Your task to perform on an android device: Open the calendar app, open the side menu, and click the "Day" option Image 0: 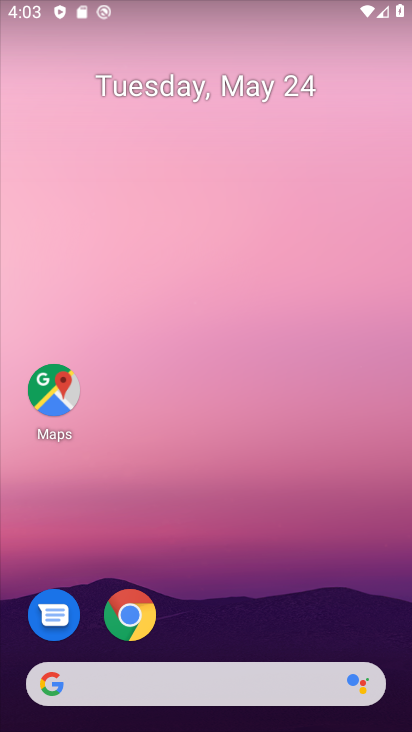
Step 0: drag from (202, 637) to (266, 139)
Your task to perform on an android device: Open the calendar app, open the side menu, and click the "Day" option Image 1: 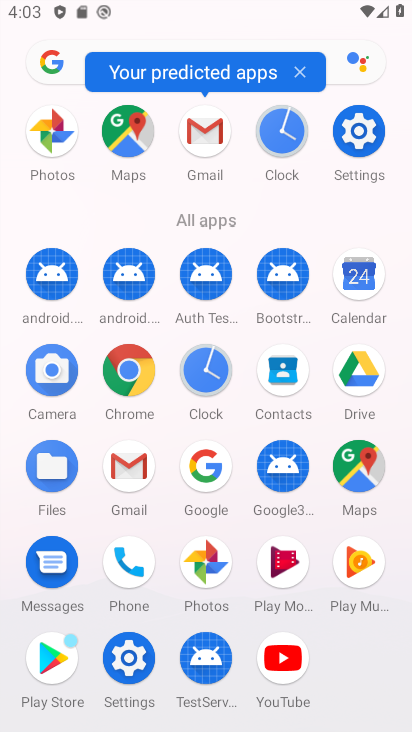
Step 1: click (357, 273)
Your task to perform on an android device: Open the calendar app, open the side menu, and click the "Day" option Image 2: 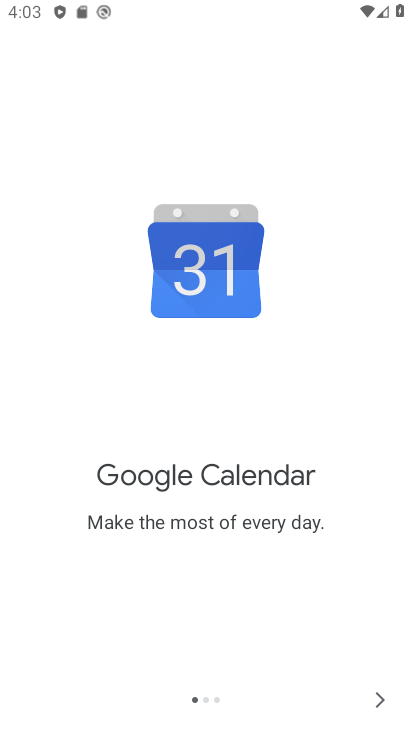
Step 2: click (380, 709)
Your task to perform on an android device: Open the calendar app, open the side menu, and click the "Day" option Image 3: 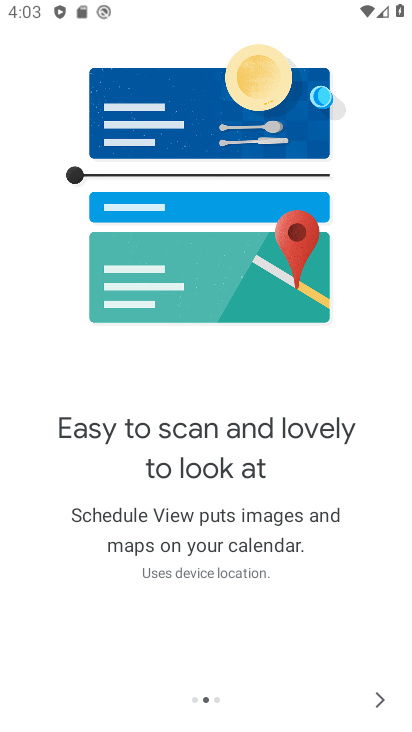
Step 3: click (378, 702)
Your task to perform on an android device: Open the calendar app, open the side menu, and click the "Day" option Image 4: 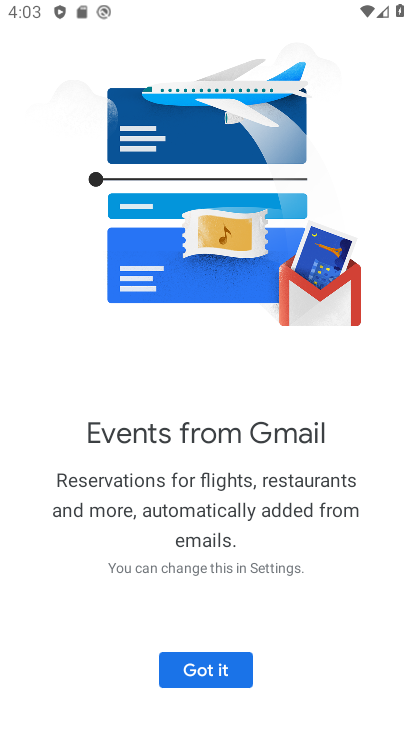
Step 4: click (213, 678)
Your task to perform on an android device: Open the calendar app, open the side menu, and click the "Day" option Image 5: 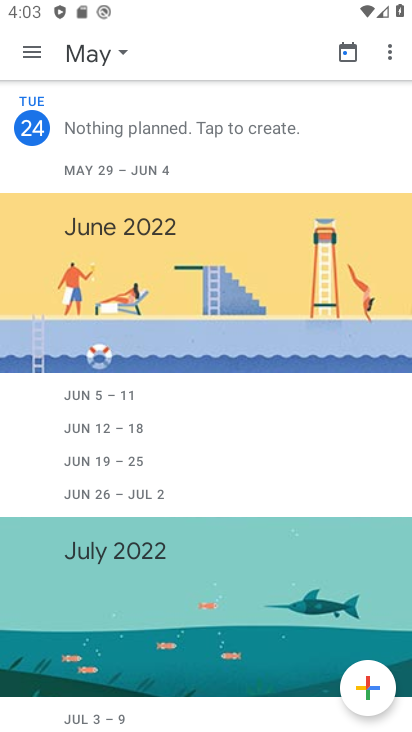
Step 5: click (26, 53)
Your task to perform on an android device: Open the calendar app, open the side menu, and click the "Day" option Image 6: 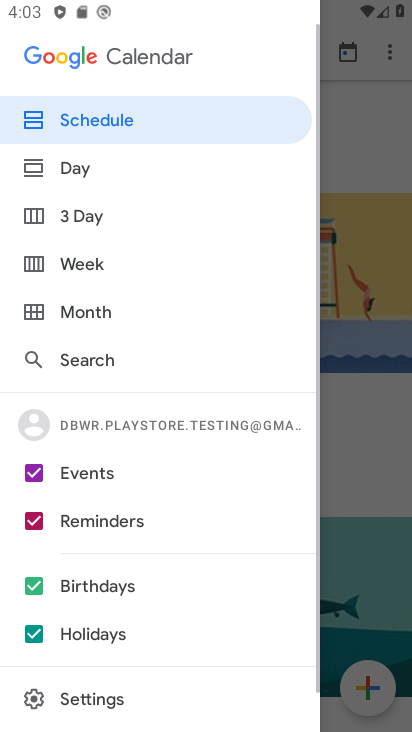
Step 6: click (102, 170)
Your task to perform on an android device: Open the calendar app, open the side menu, and click the "Day" option Image 7: 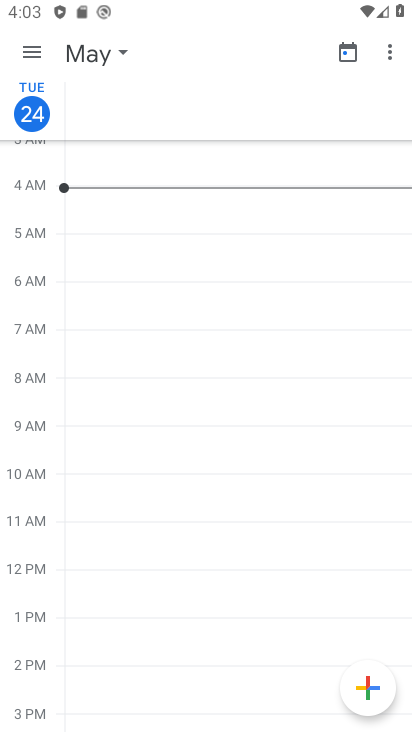
Step 7: task complete